Your task to perform on an android device: open sync settings in chrome Image 0: 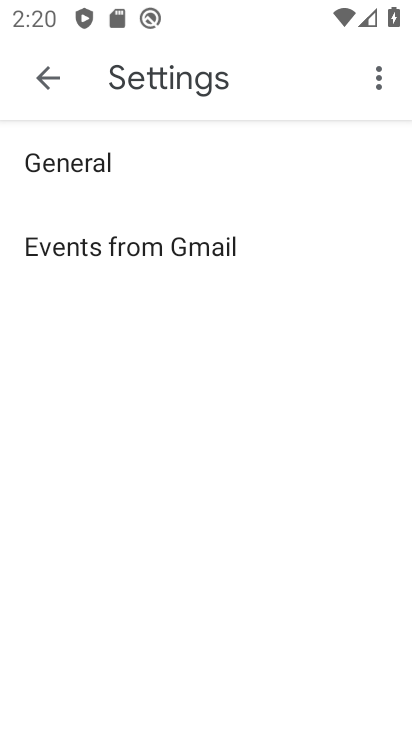
Step 0: press home button
Your task to perform on an android device: open sync settings in chrome Image 1: 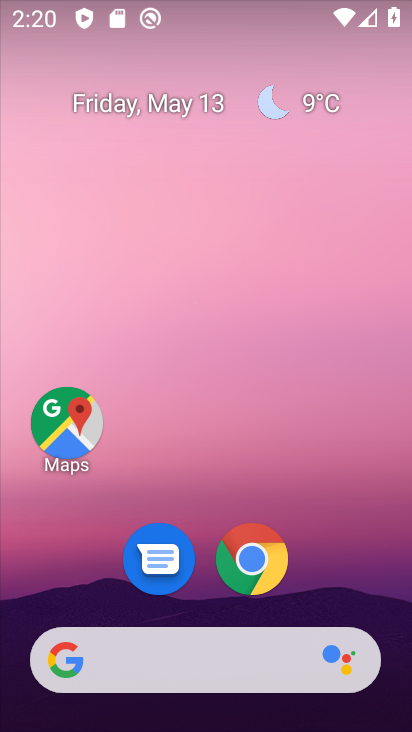
Step 1: click (248, 565)
Your task to perform on an android device: open sync settings in chrome Image 2: 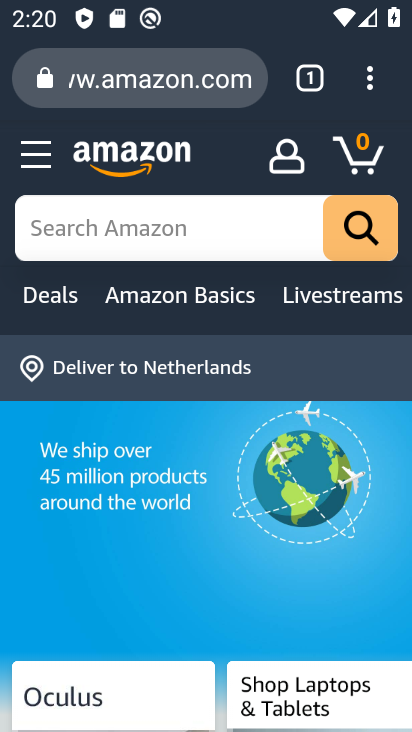
Step 2: click (383, 55)
Your task to perform on an android device: open sync settings in chrome Image 3: 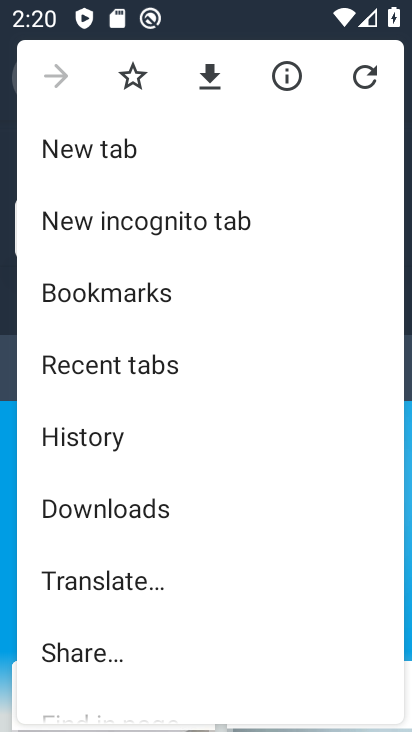
Step 3: drag from (117, 616) to (170, 221)
Your task to perform on an android device: open sync settings in chrome Image 4: 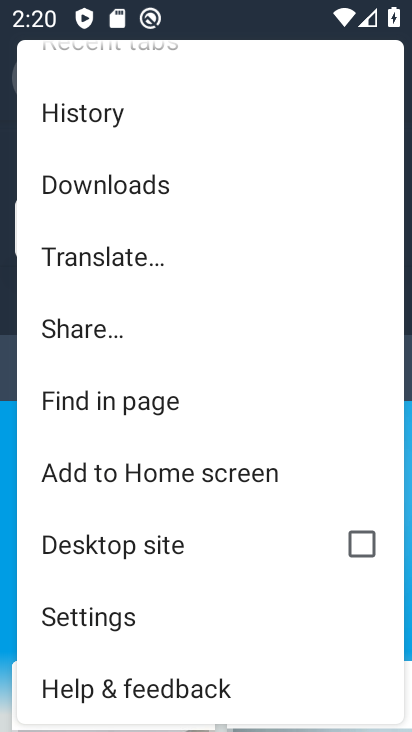
Step 4: click (94, 623)
Your task to perform on an android device: open sync settings in chrome Image 5: 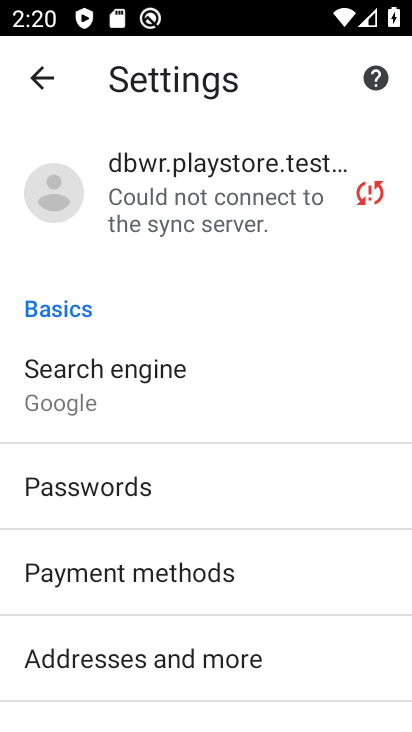
Step 5: click (206, 206)
Your task to perform on an android device: open sync settings in chrome Image 6: 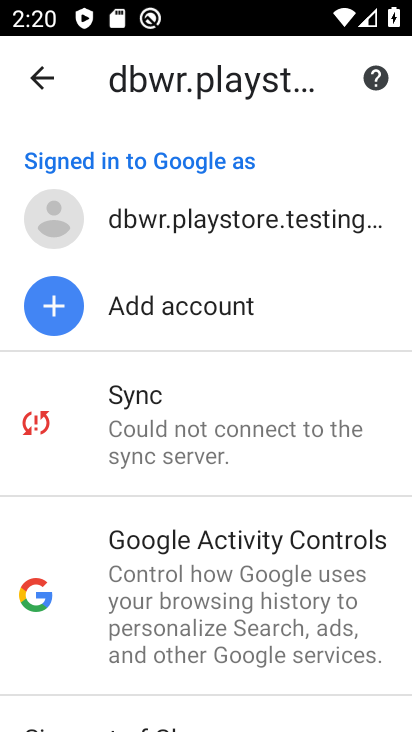
Step 6: click (155, 414)
Your task to perform on an android device: open sync settings in chrome Image 7: 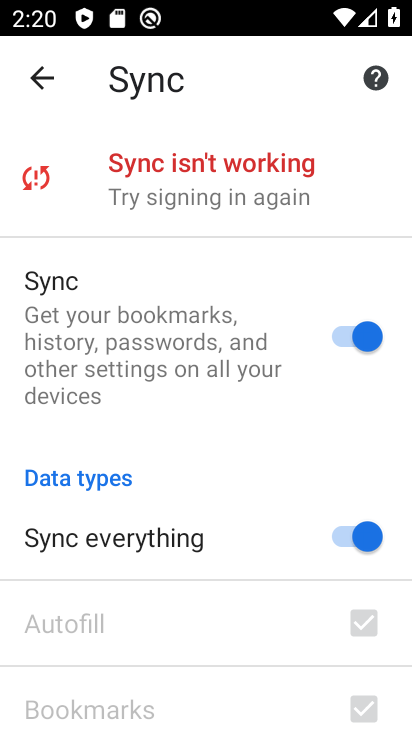
Step 7: task complete